Your task to perform on an android device: Go to battery settings Image 0: 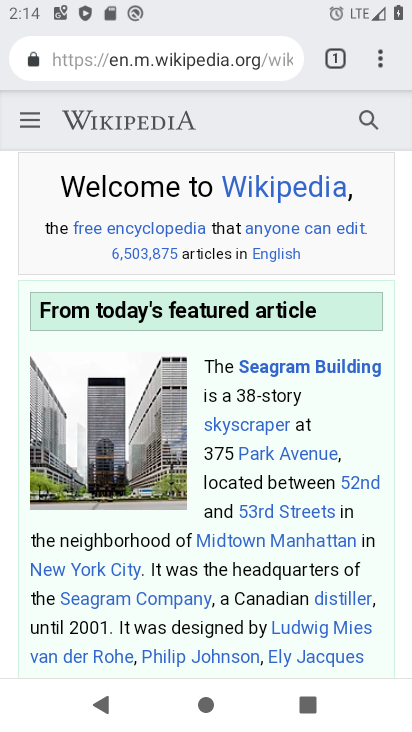
Step 0: press home button
Your task to perform on an android device: Go to battery settings Image 1: 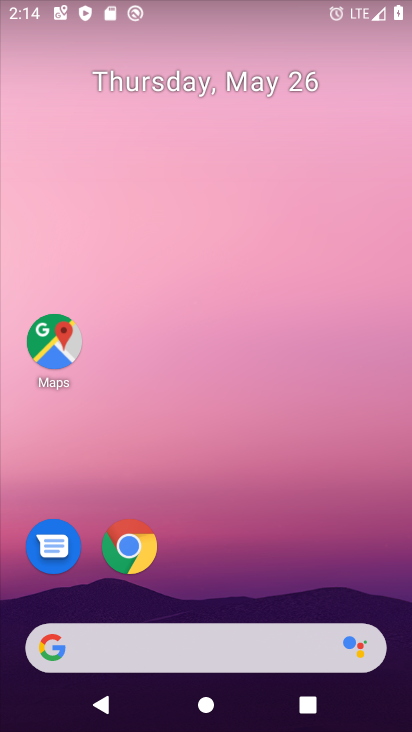
Step 1: drag from (227, 465) to (285, 58)
Your task to perform on an android device: Go to battery settings Image 2: 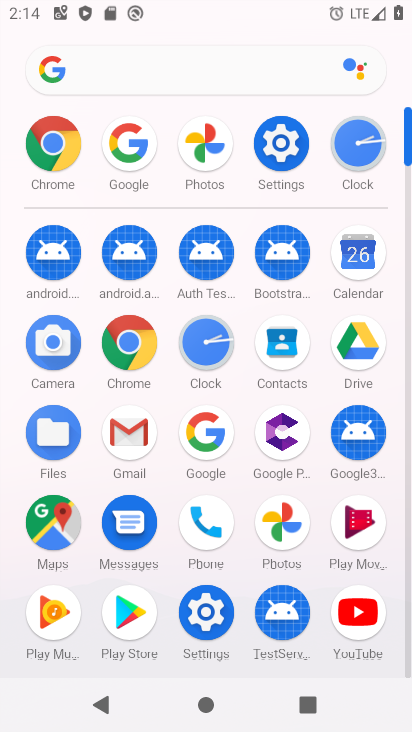
Step 2: click (288, 134)
Your task to perform on an android device: Go to battery settings Image 3: 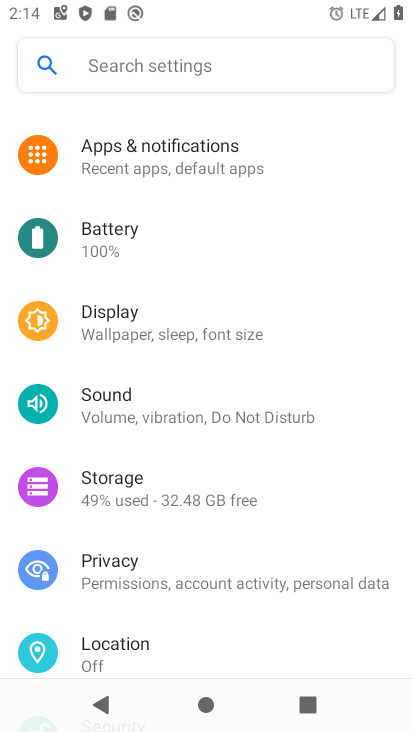
Step 3: drag from (235, 476) to (272, 563)
Your task to perform on an android device: Go to battery settings Image 4: 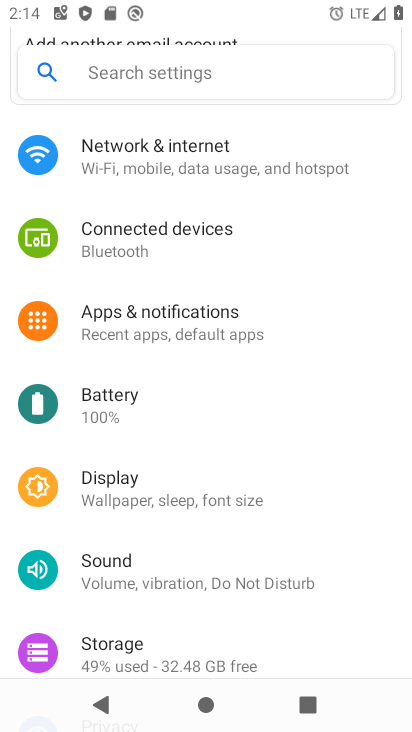
Step 4: click (102, 416)
Your task to perform on an android device: Go to battery settings Image 5: 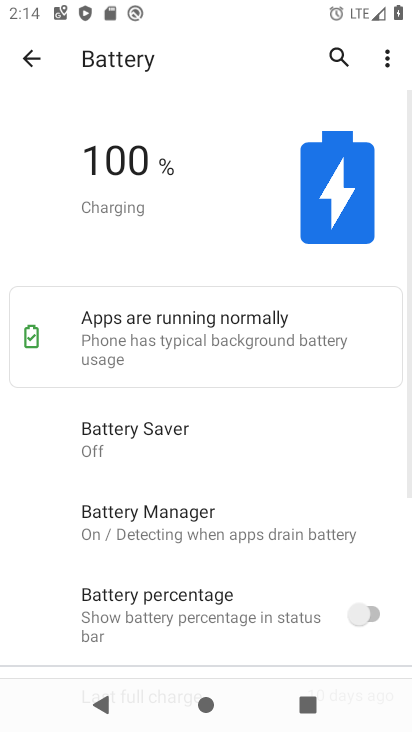
Step 5: task complete